Your task to perform on an android device: all mails in gmail Image 0: 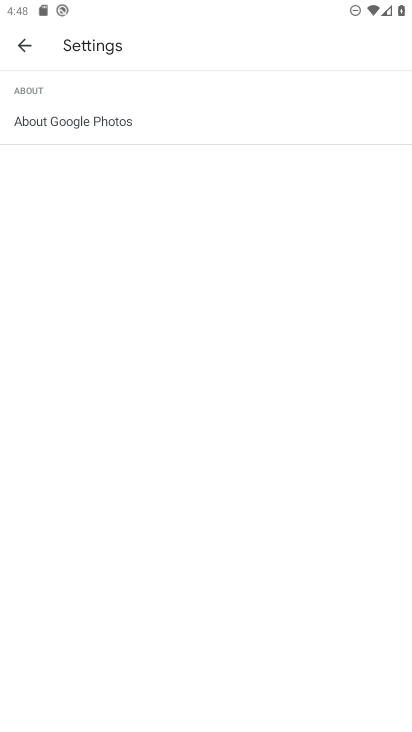
Step 0: press home button
Your task to perform on an android device: all mails in gmail Image 1: 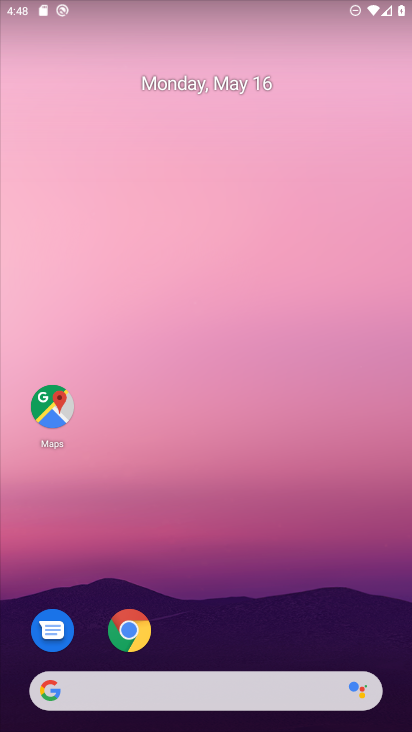
Step 1: drag from (268, 655) to (254, 65)
Your task to perform on an android device: all mails in gmail Image 2: 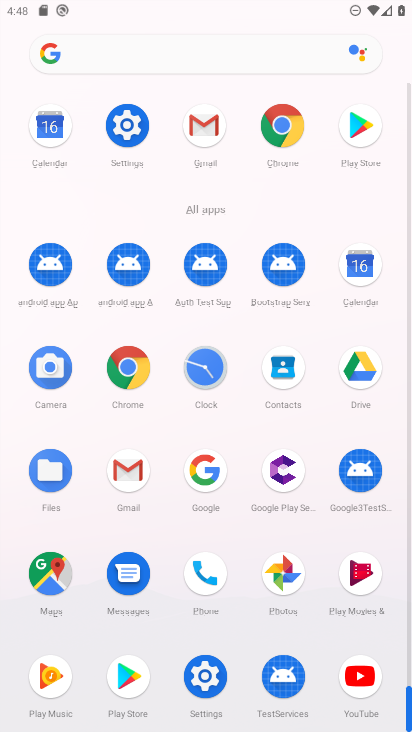
Step 2: click (144, 461)
Your task to perform on an android device: all mails in gmail Image 3: 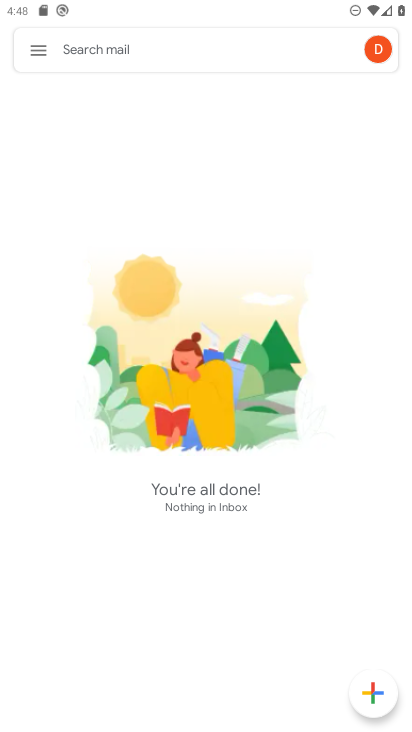
Step 3: click (31, 53)
Your task to perform on an android device: all mails in gmail Image 4: 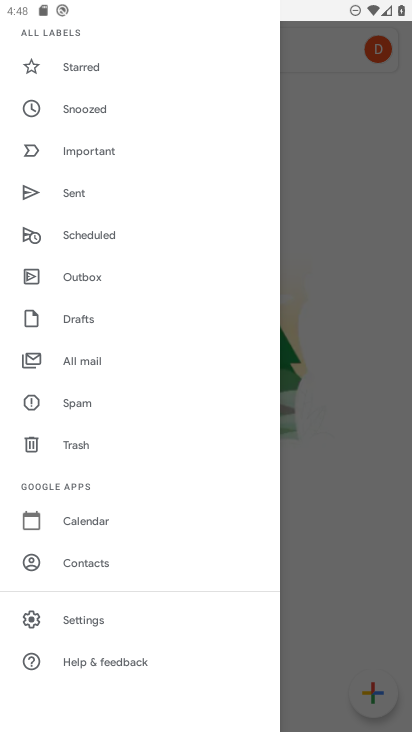
Step 4: click (66, 374)
Your task to perform on an android device: all mails in gmail Image 5: 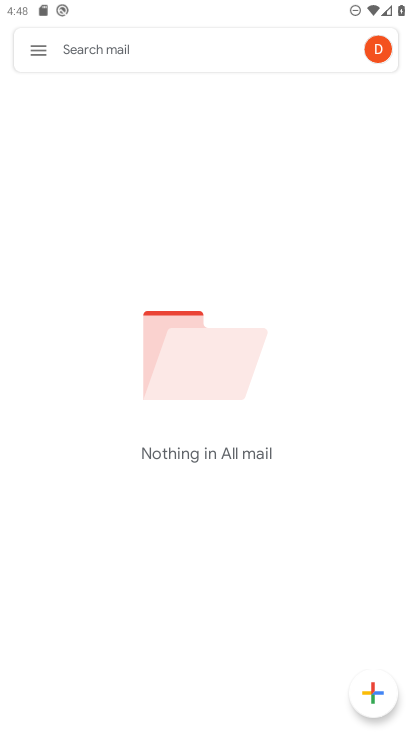
Step 5: task complete